Your task to perform on an android device: Open privacy settings Image 0: 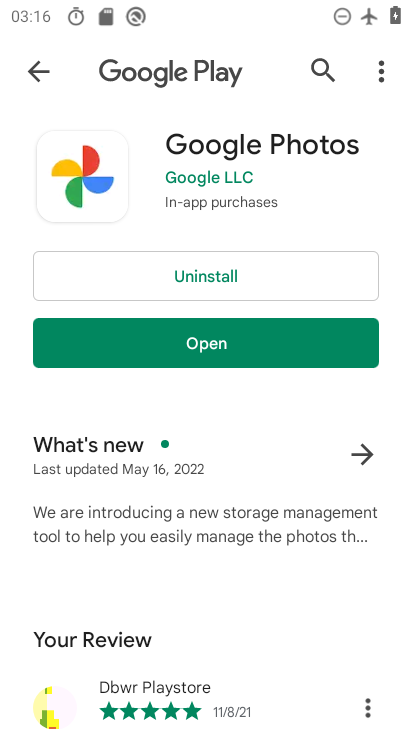
Step 0: press home button
Your task to perform on an android device: Open privacy settings Image 1: 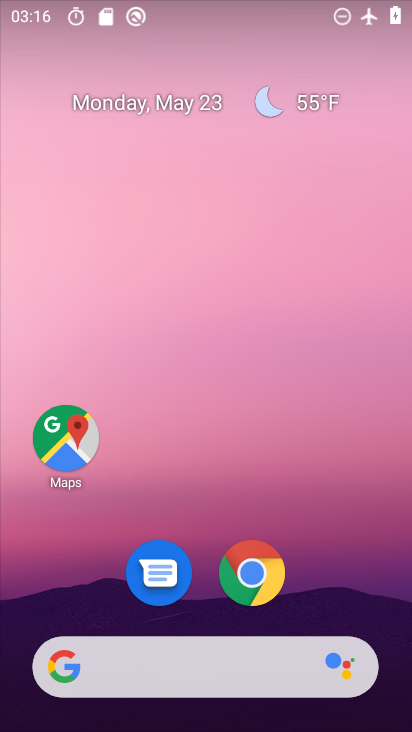
Step 1: drag from (325, 589) to (283, 22)
Your task to perform on an android device: Open privacy settings Image 2: 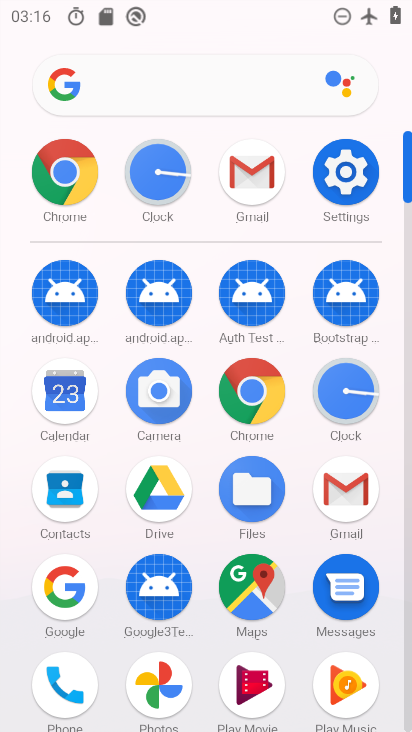
Step 2: click (354, 184)
Your task to perform on an android device: Open privacy settings Image 3: 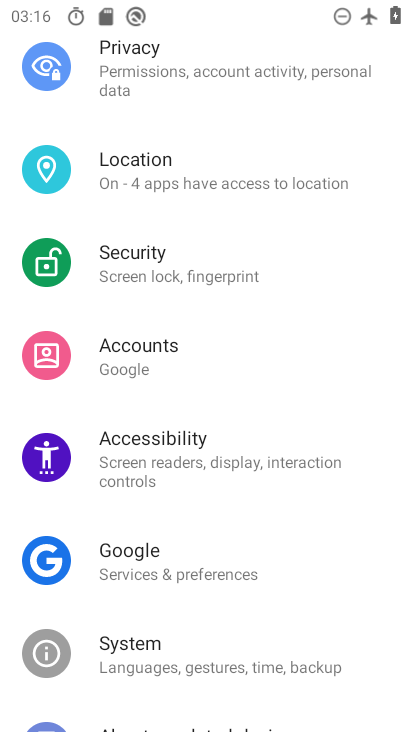
Step 3: click (224, 67)
Your task to perform on an android device: Open privacy settings Image 4: 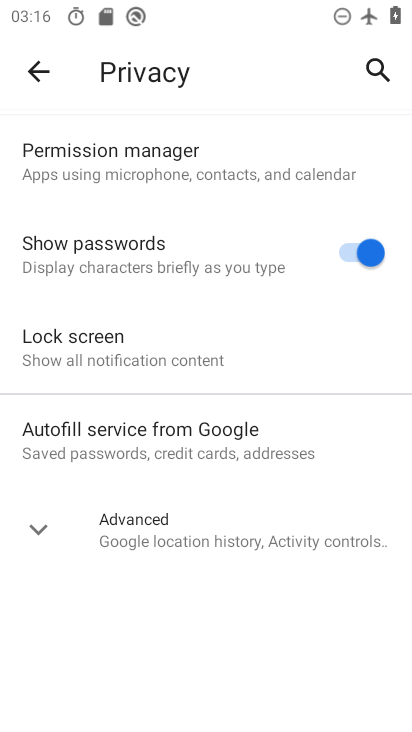
Step 4: task complete